Your task to perform on an android device: Open notification settings Image 0: 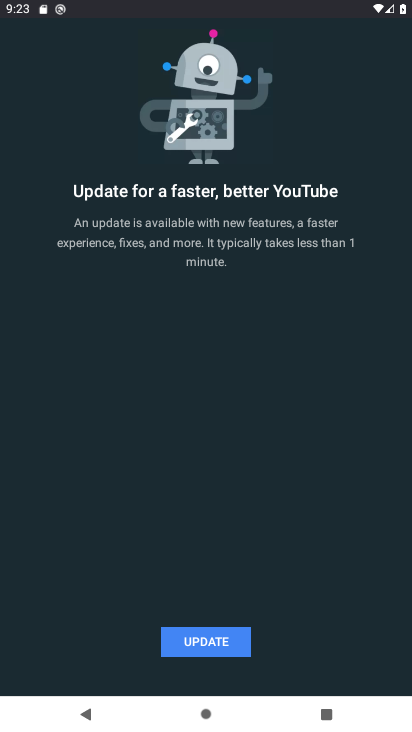
Step 0: press home button
Your task to perform on an android device: Open notification settings Image 1: 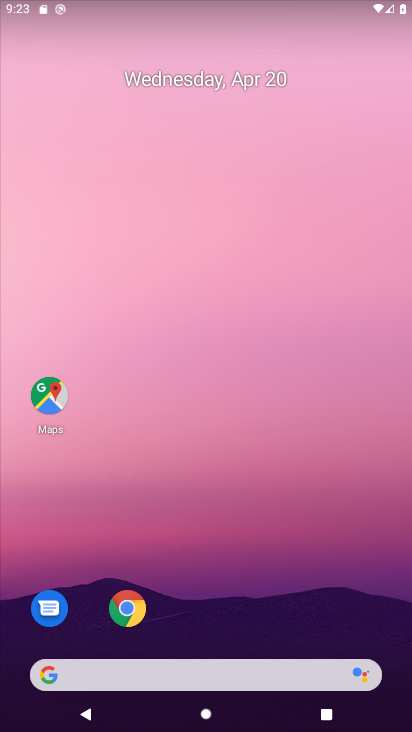
Step 1: drag from (204, 479) to (309, 6)
Your task to perform on an android device: Open notification settings Image 2: 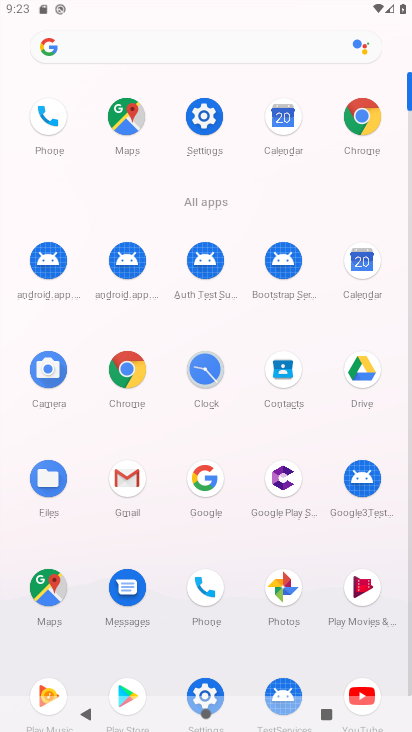
Step 2: click (200, 123)
Your task to perform on an android device: Open notification settings Image 3: 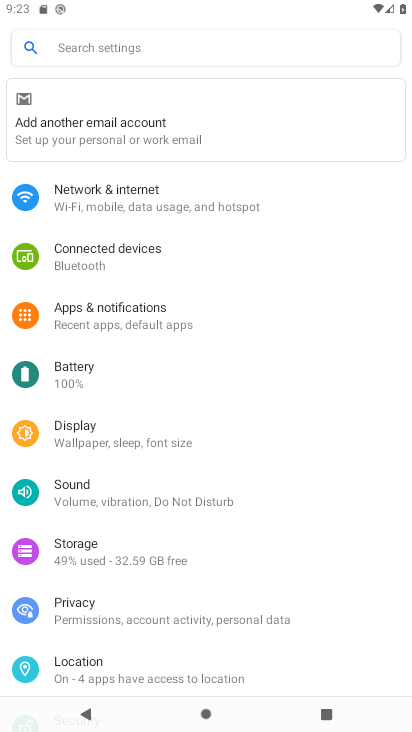
Step 3: click (112, 321)
Your task to perform on an android device: Open notification settings Image 4: 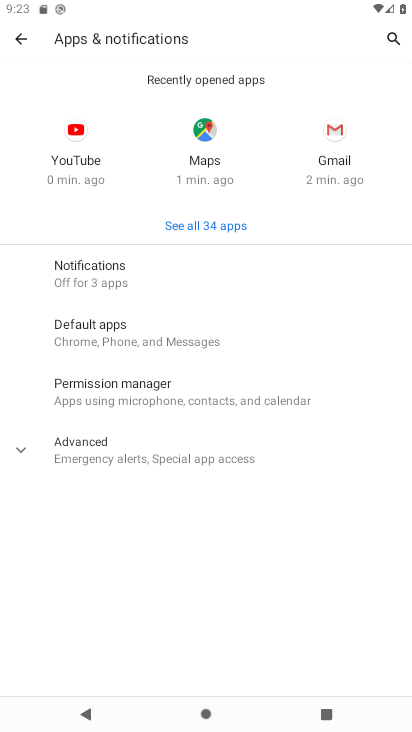
Step 4: click (116, 277)
Your task to perform on an android device: Open notification settings Image 5: 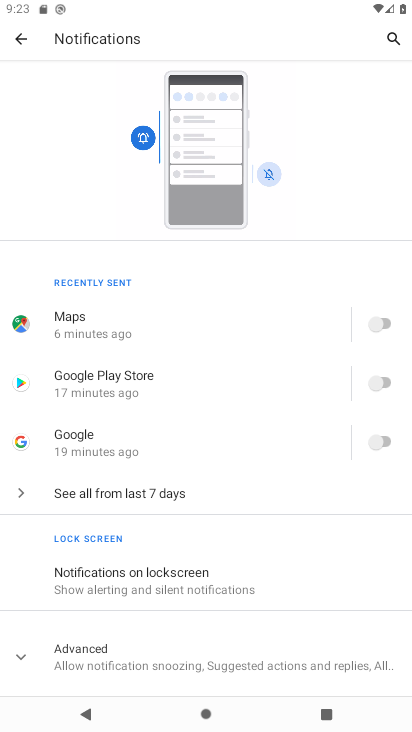
Step 5: task complete